Your task to perform on an android device: turn off location history Image 0: 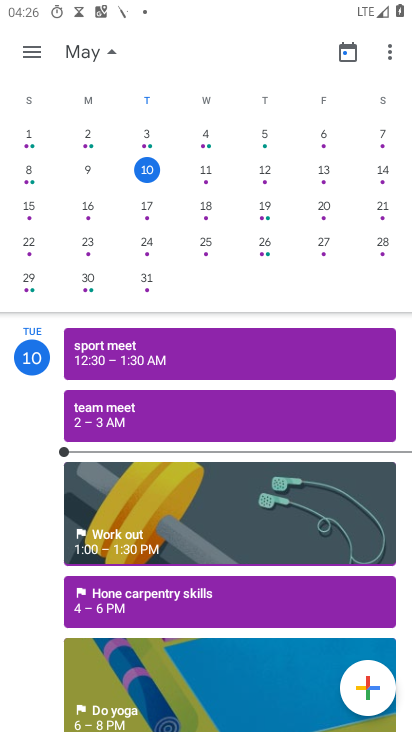
Step 0: press home button
Your task to perform on an android device: turn off location history Image 1: 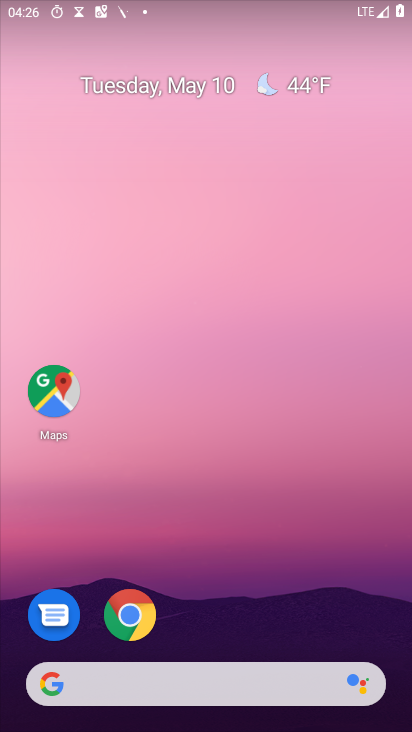
Step 1: drag from (347, 659) to (330, 70)
Your task to perform on an android device: turn off location history Image 2: 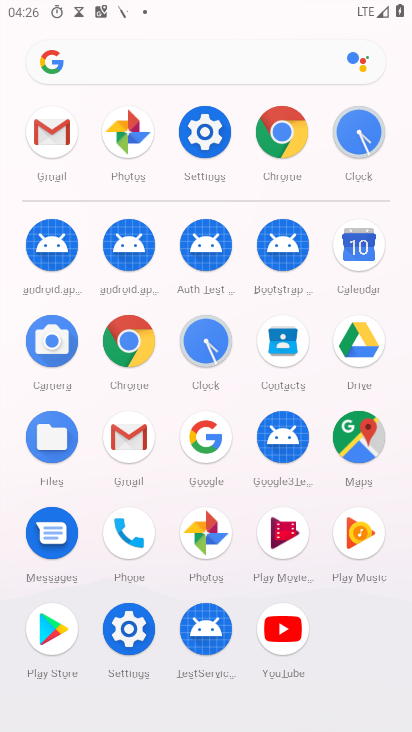
Step 2: click (207, 138)
Your task to perform on an android device: turn off location history Image 3: 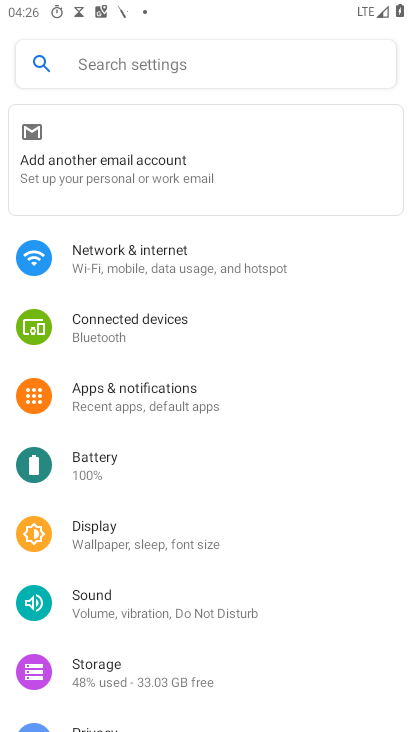
Step 3: drag from (194, 728) to (191, 320)
Your task to perform on an android device: turn off location history Image 4: 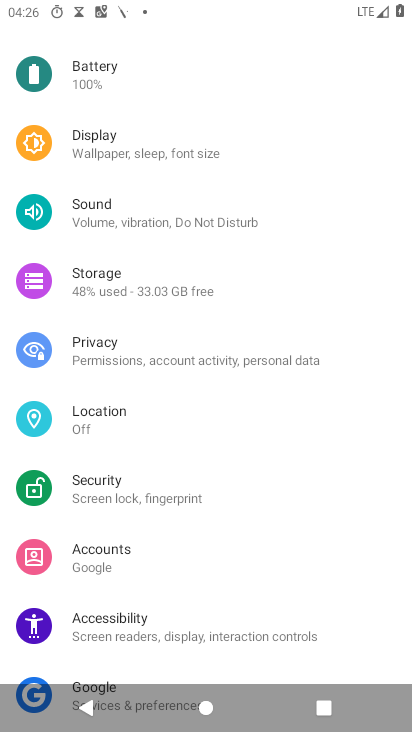
Step 4: click (166, 412)
Your task to perform on an android device: turn off location history Image 5: 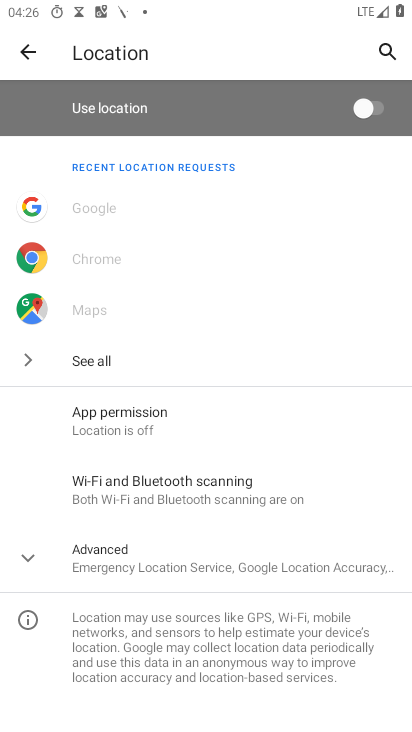
Step 5: click (193, 553)
Your task to perform on an android device: turn off location history Image 6: 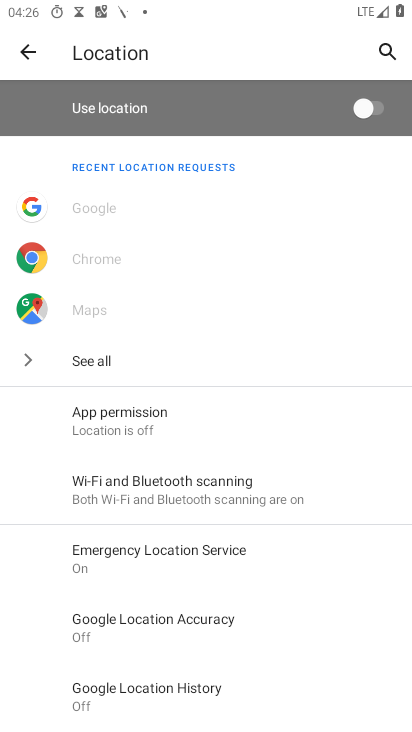
Step 6: drag from (274, 686) to (291, 274)
Your task to perform on an android device: turn off location history Image 7: 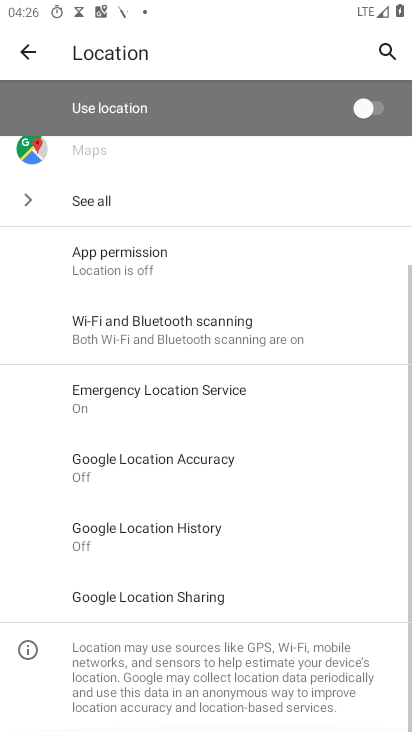
Step 7: click (217, 535)
Your task to perform on an android device: turn off location history Image 8: 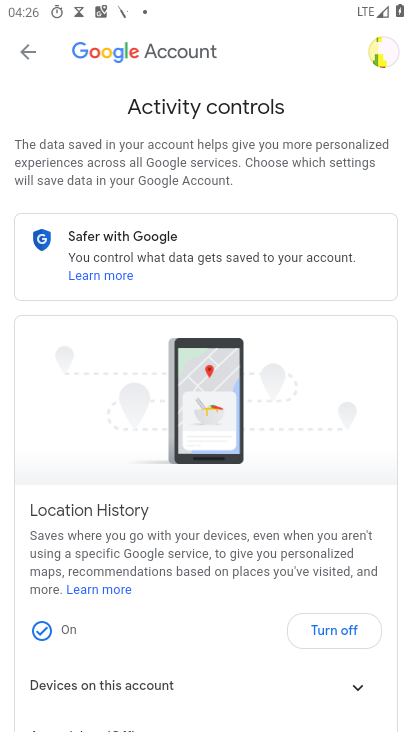
Step 8: drag from (275, 591) to (256, 141)
Your task to perform on an android device: turn off location history Image 9: 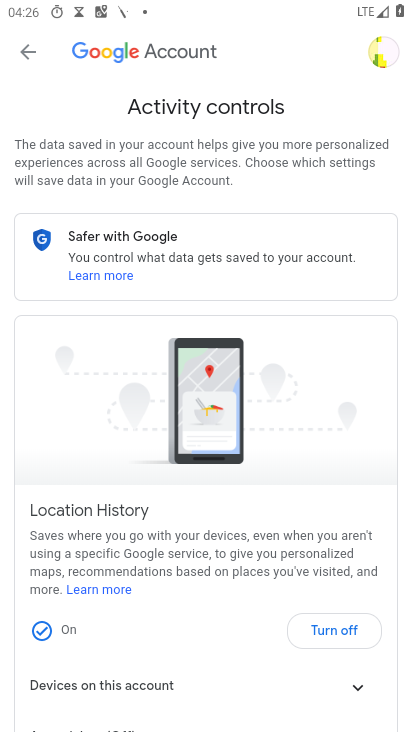
Step 9: click (337, 626)
Your task to perform on an android device: turn off location history Image 10: 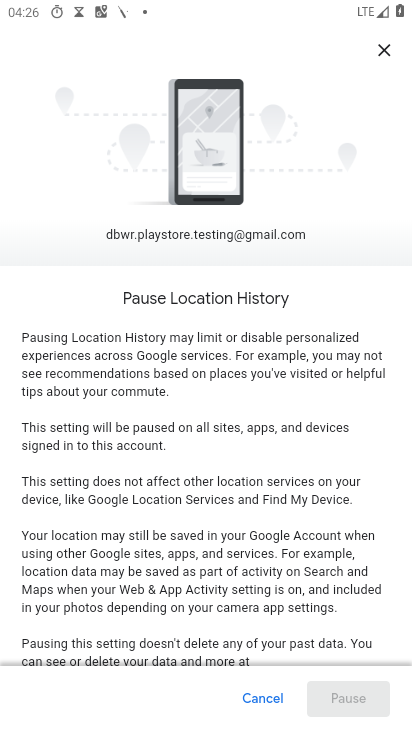
Step 10: drag from (288, 637) to (298, 118)
Your task to perform on an android device: turn off location history Image 11: 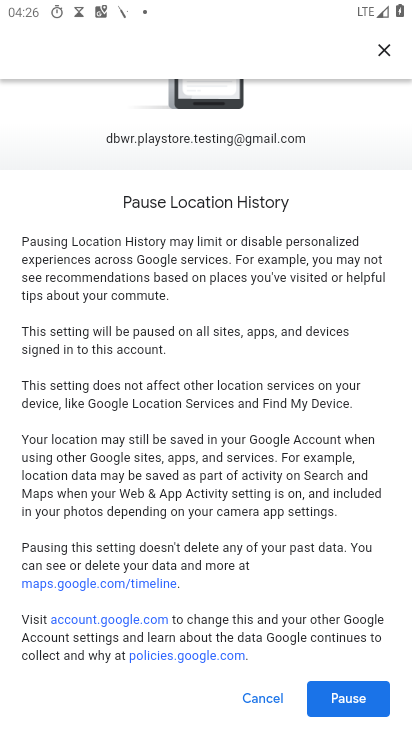
Step 11: drag from (286, 576) to (294, 111)
Your task to perform on an android device: turn off location history Image 12: 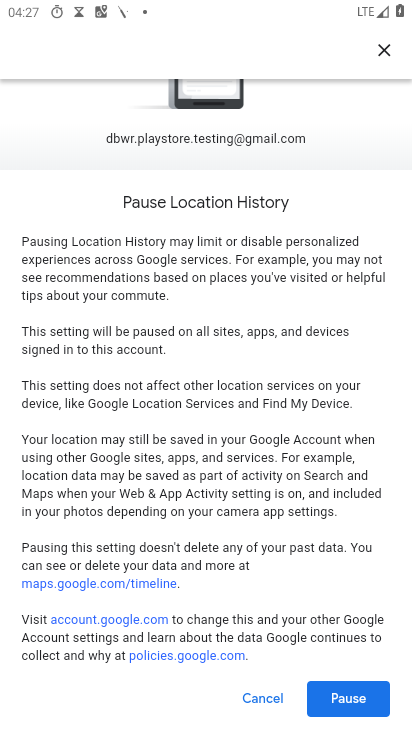
Step 12: click (354, 714)
Your task to perform on an android device: turn off location history Image 13: 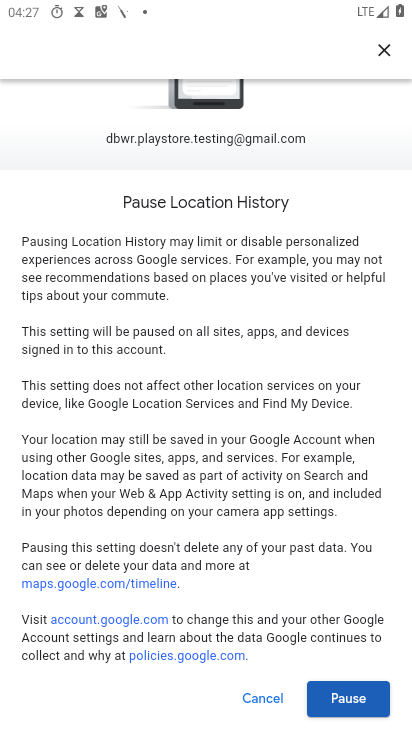
Step 13: click (353, 706)
Your task to perform on an android device: turn off location history Image 14: 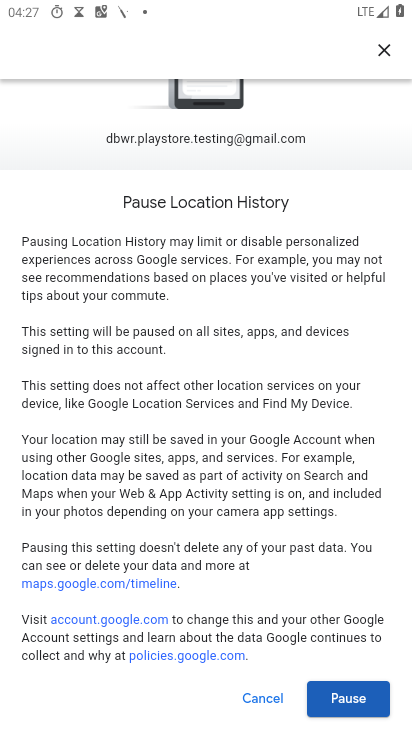
Step 14: click (353, 706)
Your task to perform on an android device: turn off location history Image 15: 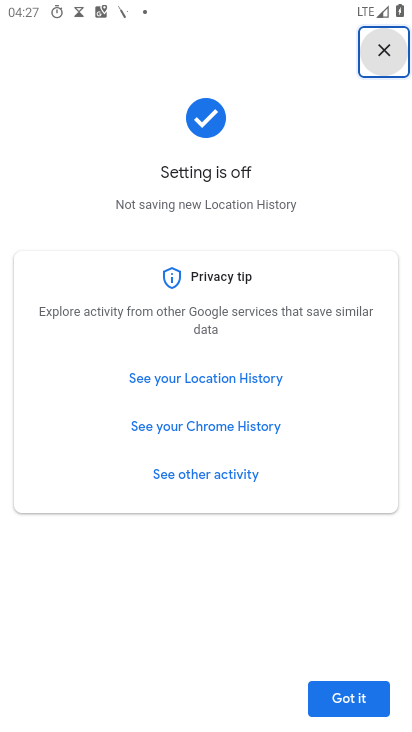
Step 15: task complete